Your task to perform on an android device: Go to CNN.com Image 0: 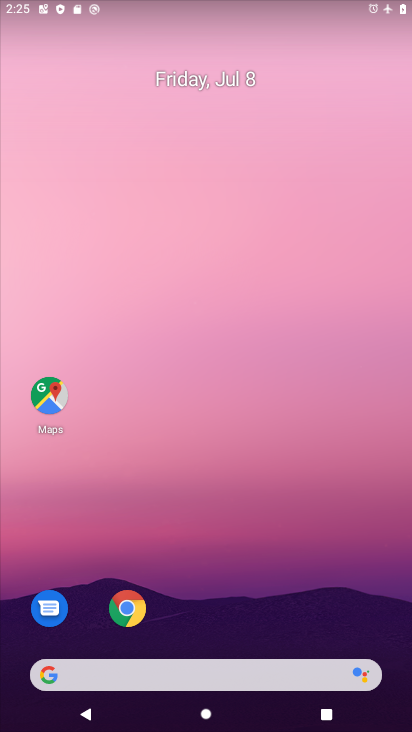
Step 0: click (110, 600)
Your task to perform on an android device: Go to CNN.com Image 1: 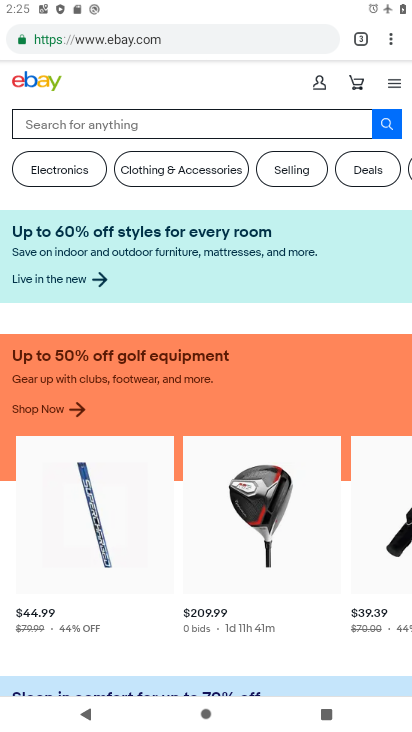
Step 1: click (355, 49)
Your task to perform on an android device: Go to CNN.com Image 2: 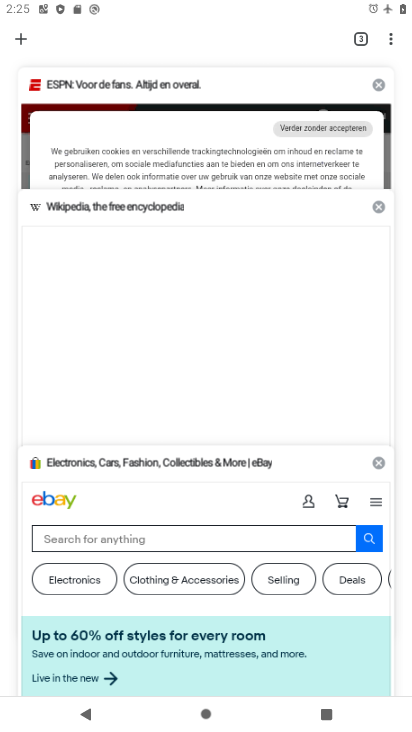
Step 2: click (24, 41)
Your task to perform on an android device: Go to CNN.com Image 3: 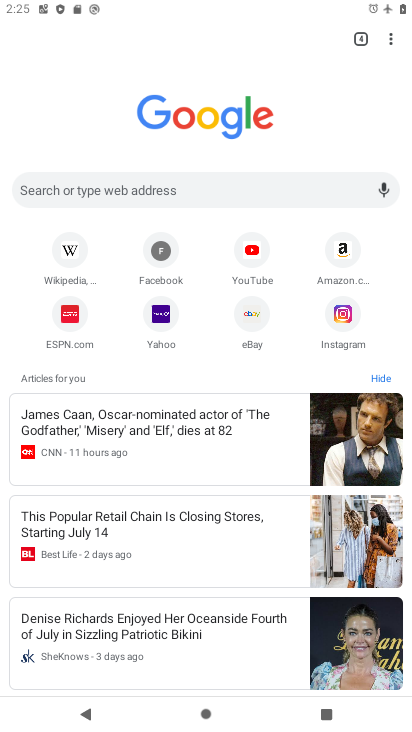
Step 3: click (183, 187)
Your task to perform on an android device: Go to CNN.com Image 4: 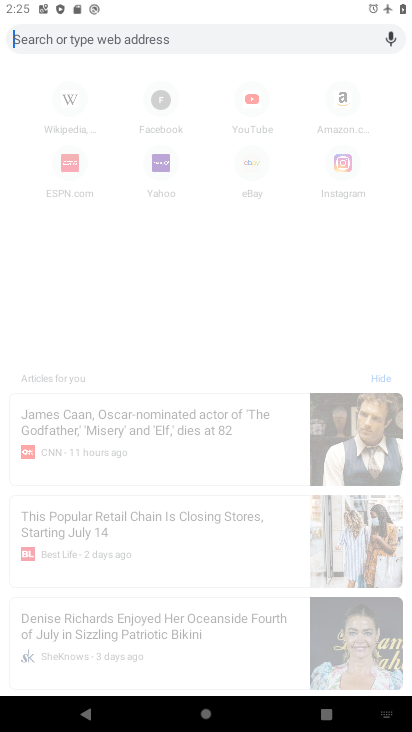
Step 4: type "cnn"
Your task to perform on an android device: Go to CNN.com Image 5: 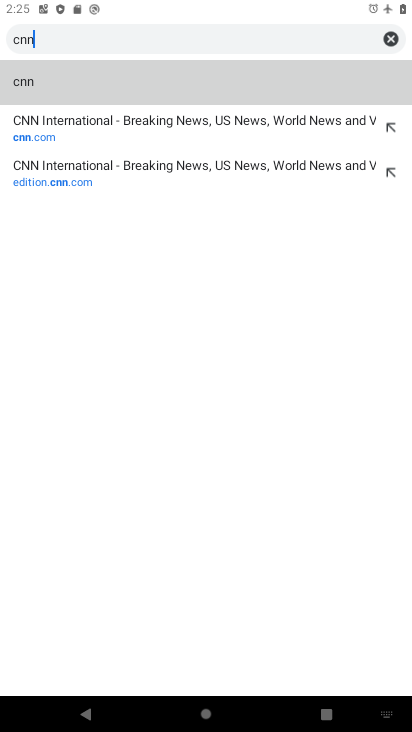
Step 5: click (206, 134)
Your task to perform on an android device: Go to CNN.com Image 6: 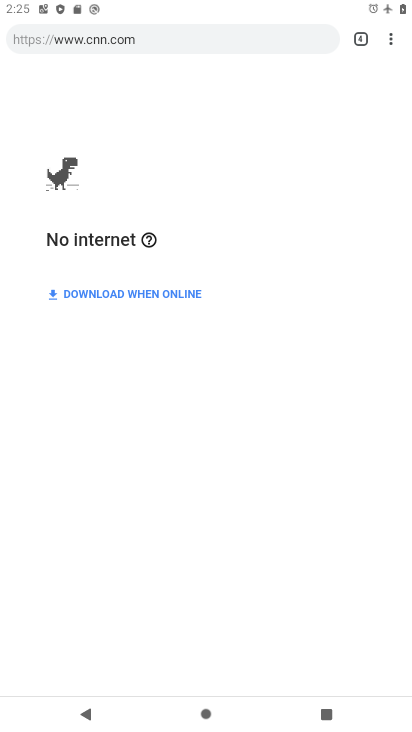
Step 6: task complete